Your task to perform on an android device: refresh tabs in the chrome app Image 0: 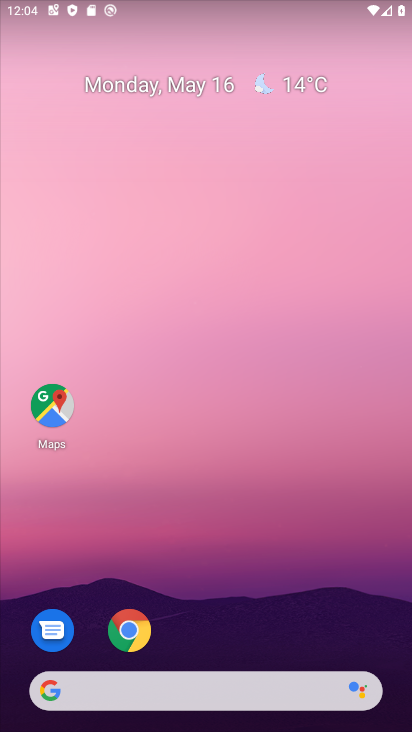
Step 0: click (132, 629)
Your task to perform on an android device: refresh tabs in the chrome app Image 1: 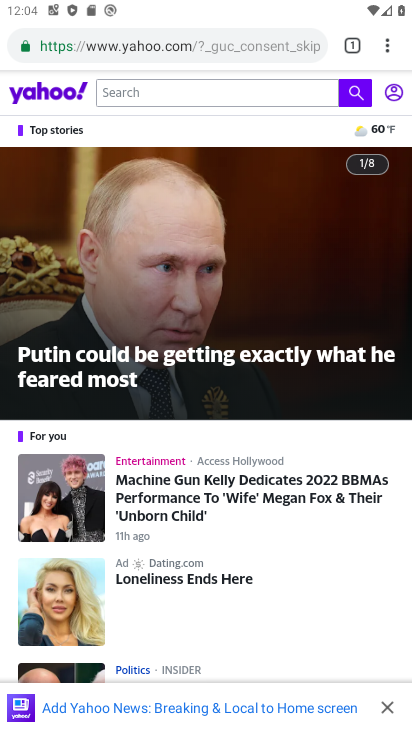
Step 1: click (394, 57)
Your task to perform on an android device: refresh tabs in the chrome app Image 2: 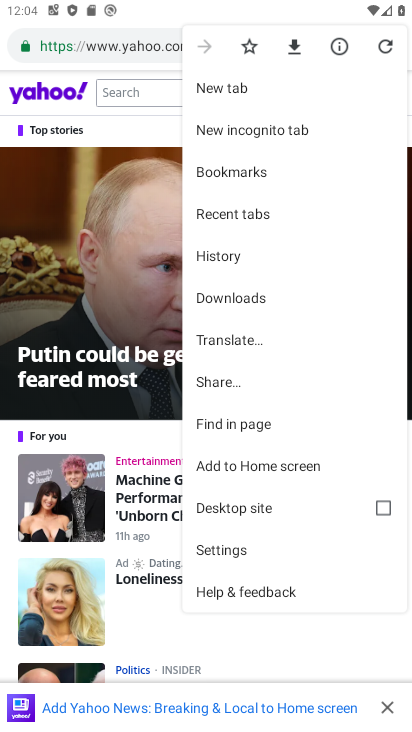
Step 2: click (388, 51)
Your task to perform on an android device: refresh tabs in the chrome app Image 3: 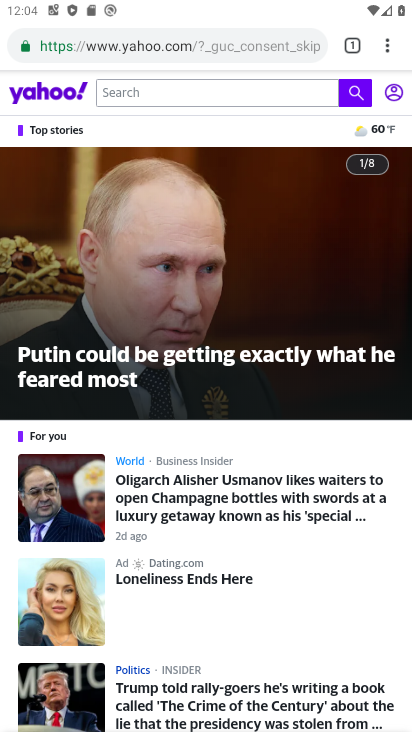
Step 3: task complete